Your task to perform on an android device: choose inbox layout in the gmail app Image 0: 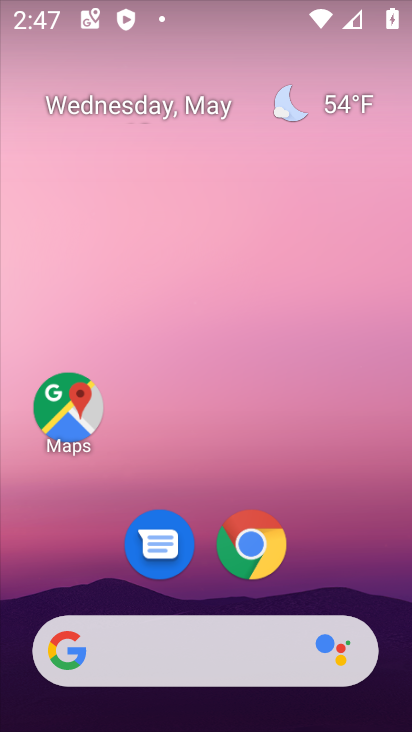
Step 0: drag from (375, 548) to (365, 138)
Your task to perform on an android device: choose inbox layout in the gmail app Image 1: 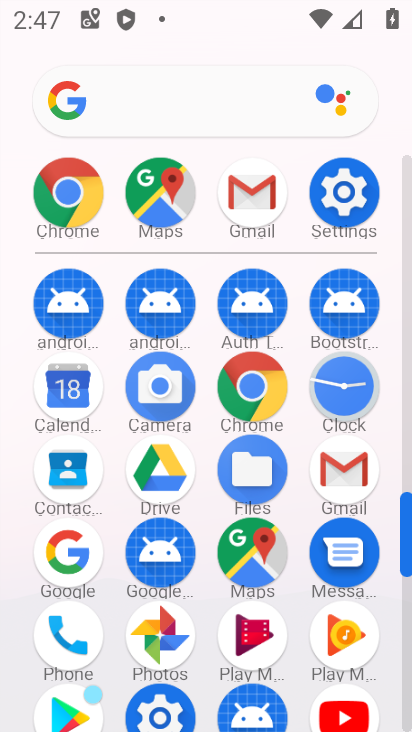
Step 1: click (256, 193)
Your task to perform on an android device: choose inbox layout in the gmail app Image 2: 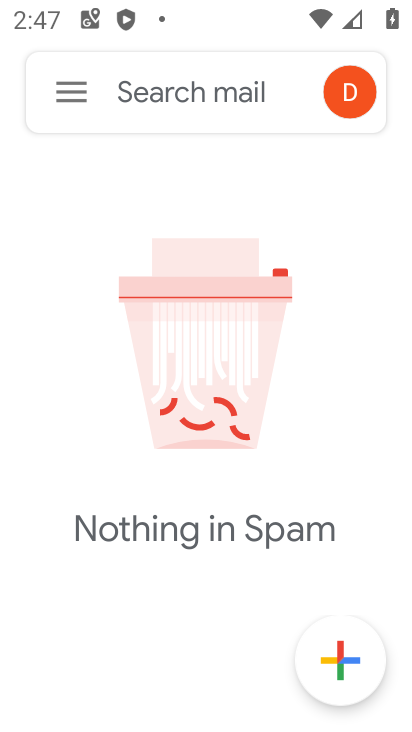
Step 2: click (63, 114)
Your task to perform on an android device: choose inbox layout in the gmail app Image 3: 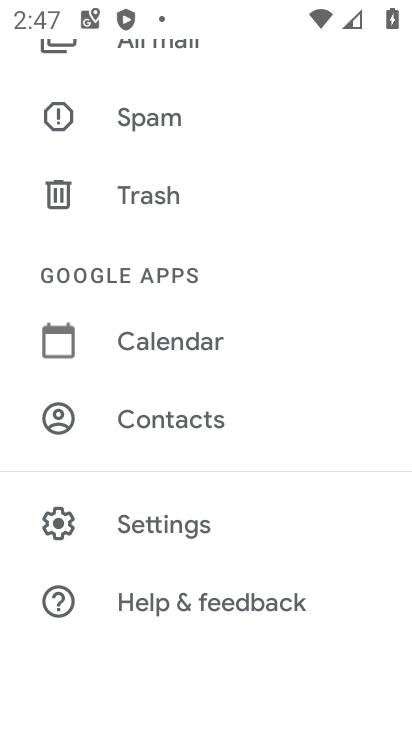
Step 3: drag from (180, 273) to (207, 620)
Your task to perform on an android device: choose inbox layout in the gmail app Image 4: 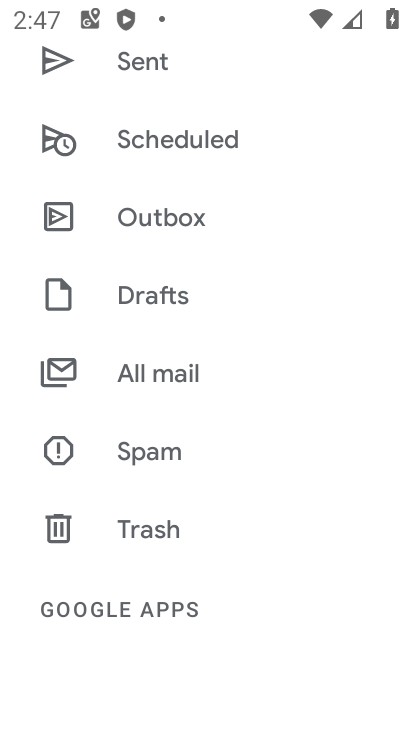
Step 4: drag from (241, 279) to (255, 692)
Your task to perform on an android device: choose inbox layout in the gmail app Image 5: 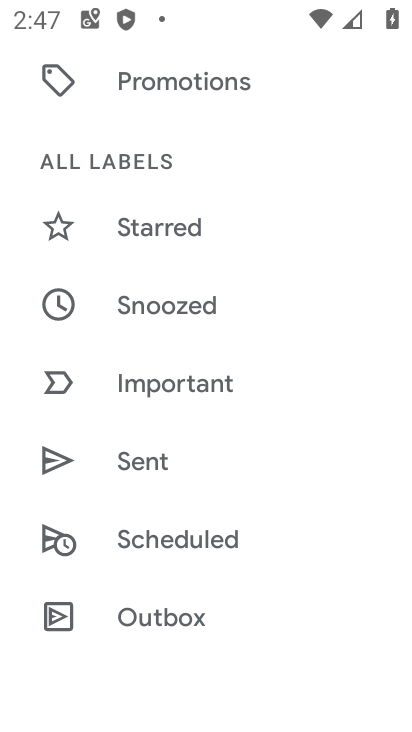
Step 5: drag from (232, 124) to (227, 682)
Your task to perform on an android device: choose inbox layout in the gmail app Image 6: 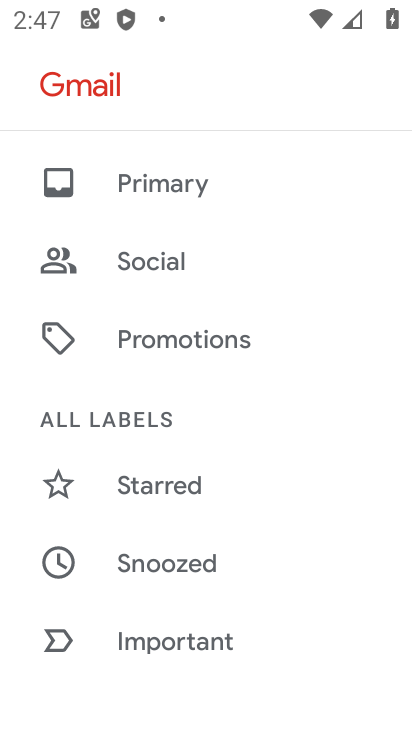
Step 6: click (208, 212)
Your task to perform on an android device: choose inbox layout in the gmail app Image 7: 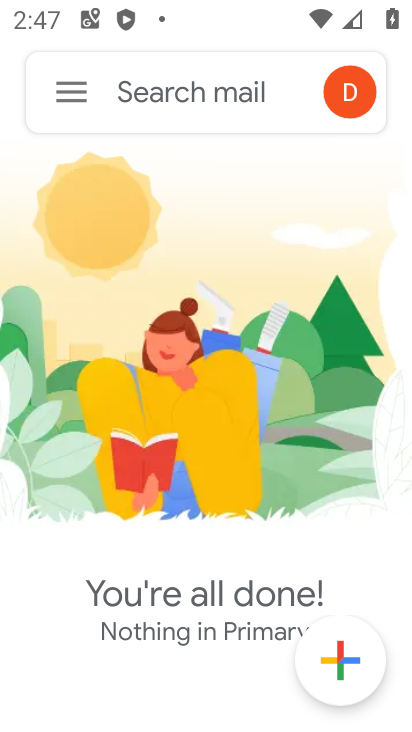
Step 7: task complete